Your task to perform on an android device: Open the stopwatch Image 0: 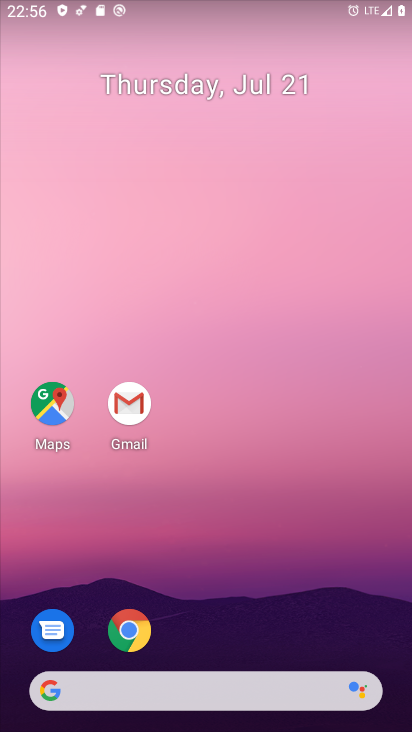
Step 0: drag from (281, 601) to (216, 344)
Your task to perform on an android device: Open the stopwatch Image 1: 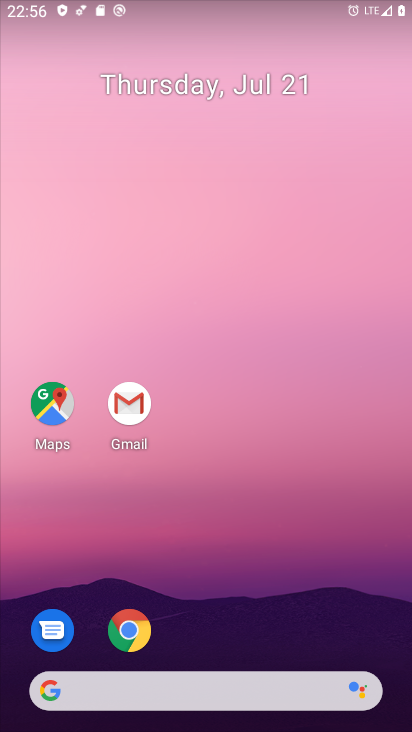
Step 1: drag from (246, 540) to (222, 173)
Your task to perform on an android device: Open the stopwatch Image 2: 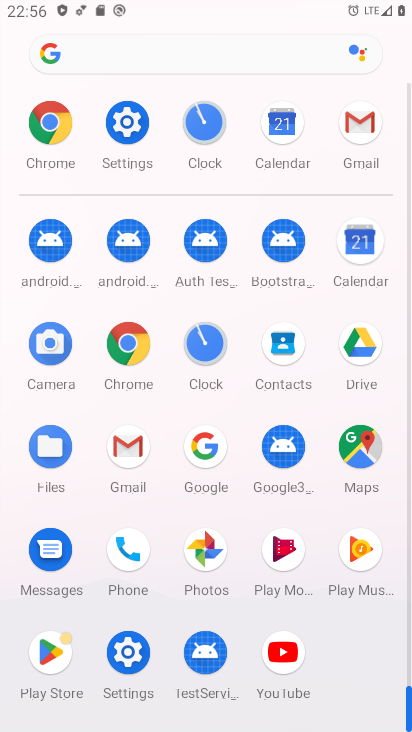
Step 2: click (206, 345)
Your task to perform on an android device: Open the stopwatch Image 3: 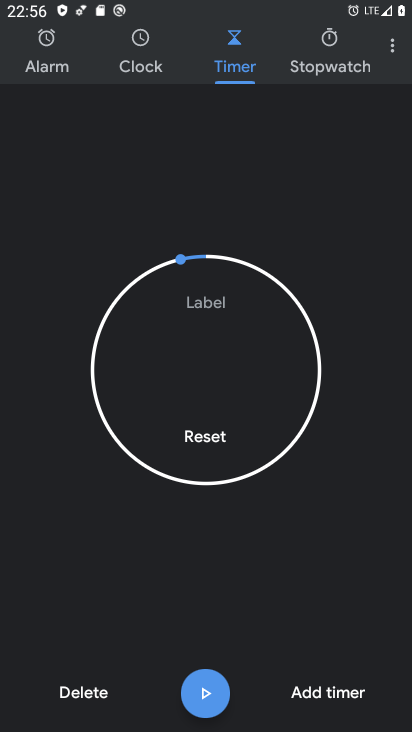
Step 3: click (203, 343)
Your task to perform on an android device: Open the stopwatch Image 4: 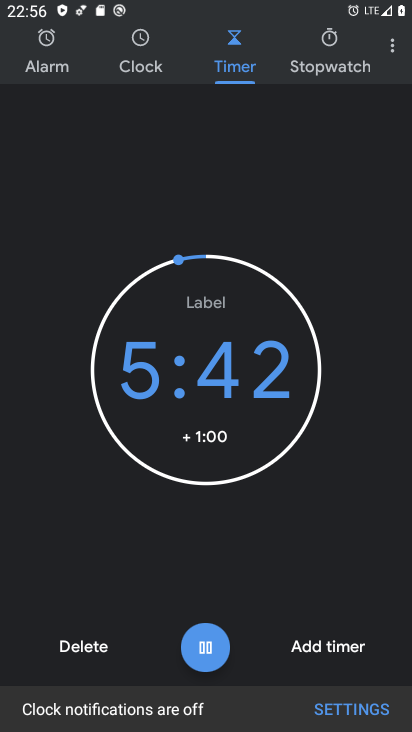
Step 4: click (335, 36)
Your task to perform on an android device: Open the stopwatch Image 5: 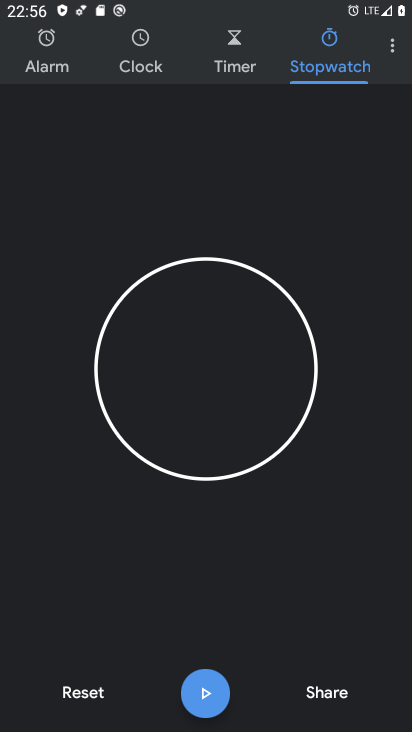
Step 5: click (204, 701)
Your task to perform on an android device: Open the stopwatch Image 6: 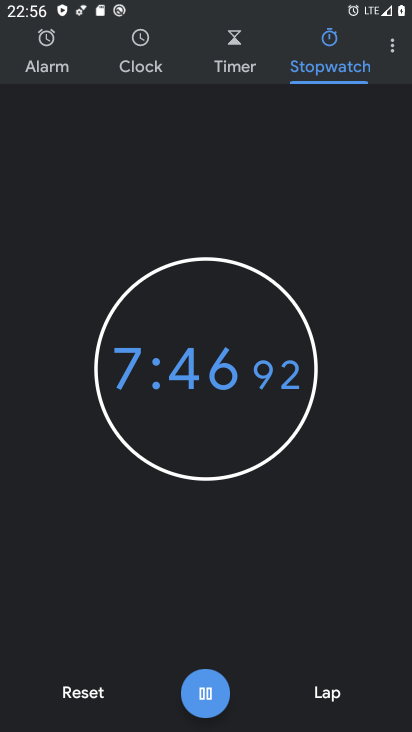
Step 6: click (201, 692)
Your task to perform on an android device: Open the stopwatch Image 7: 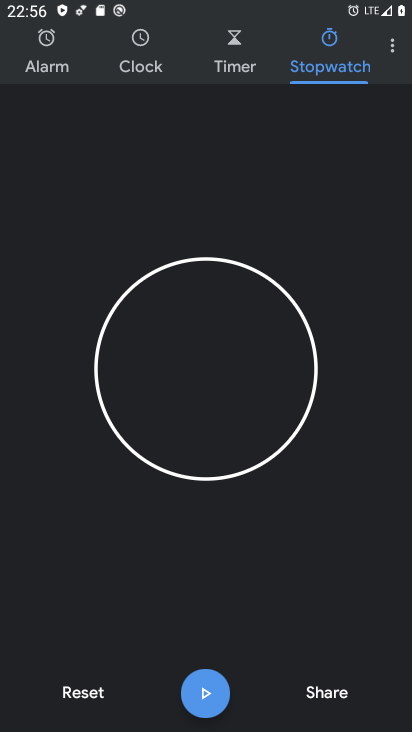
Step 7: task complete